Your task to perform on an android device: move an email to a new category in the gmail app Image 0: 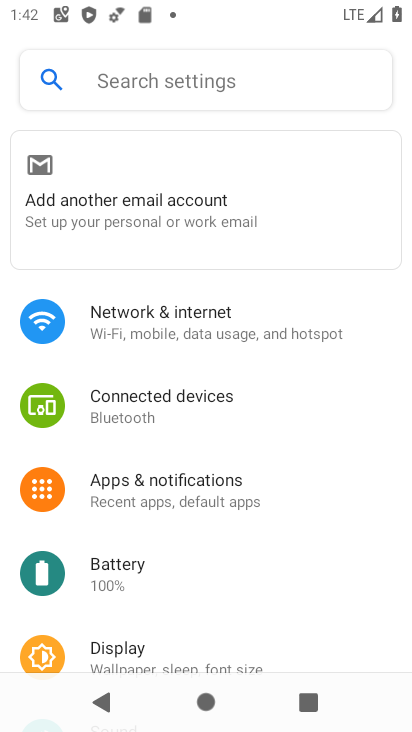
Step 0: press home button
Your task to perform on an android device: move an email to a new category in the gmail app Image 1: 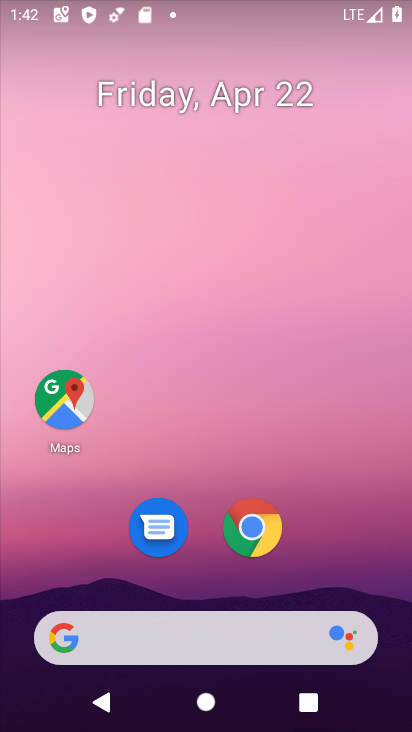
Step 1: drag from (338, 521) to (242, 18)
Your task to perform on an android device: move an email to a new category in the gmail app Image 2: 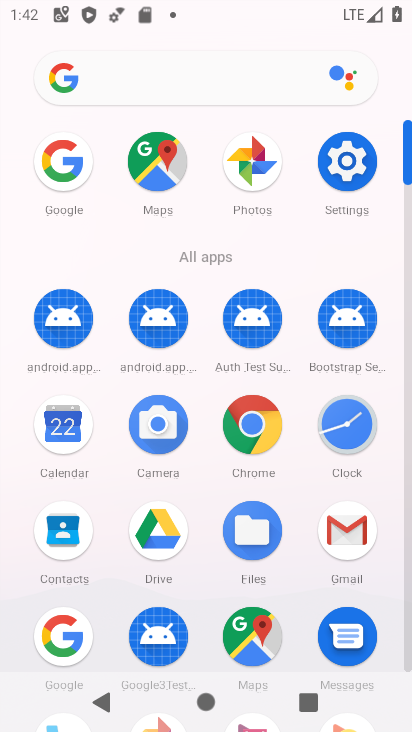
Step 2: click (341, 530)
Your task to perform on an android device: move an email to a new category in the gmail app Image 3: 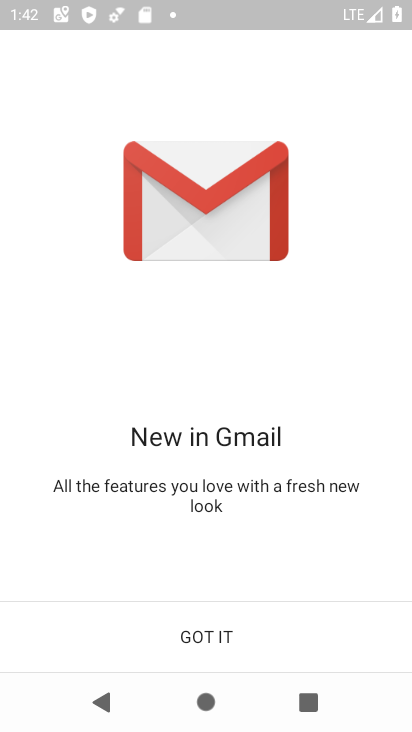
Step 3: click (212, 637)
Your task to perform on an android device: move an email to a new category in the gmail app Image 4: 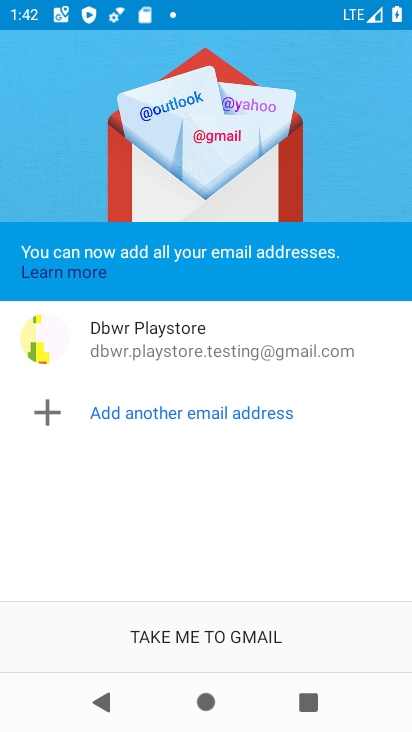
Step 4: click (208, 637)
Your task to perform on an android device: move an email to a new category in the gmail app Image 5: 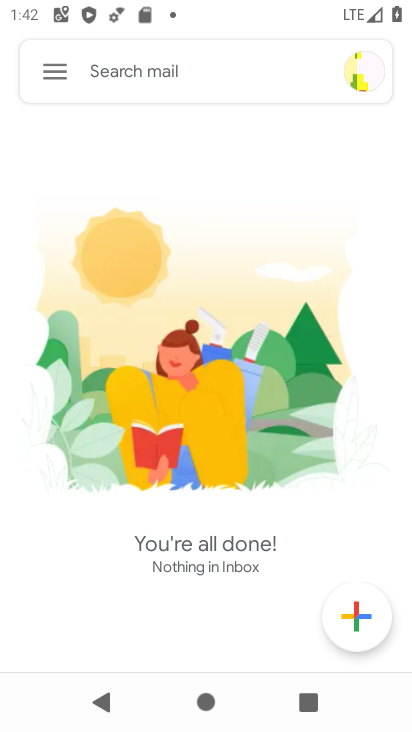
Step 5: click (59, 82)
Your task to perform on an android device: move an email to a new category in the gmail app Image 6: 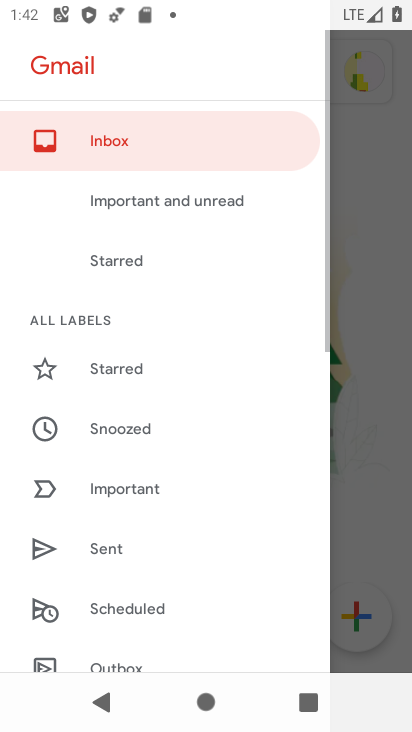
Step 6: task complete